Your task to perform on an android device: Open Google Chrome and click the shortcut for Amazon.com Image 0: 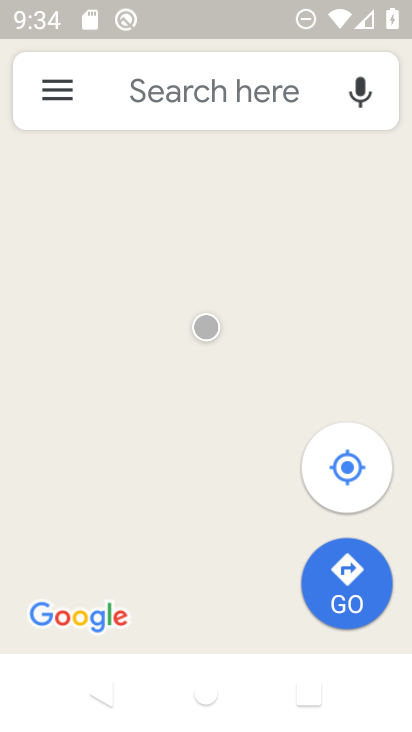
Step 0: press home button
Your task to perform on an android device: Open Google Chrome and click the shortcut for Amazon.com Image 1: 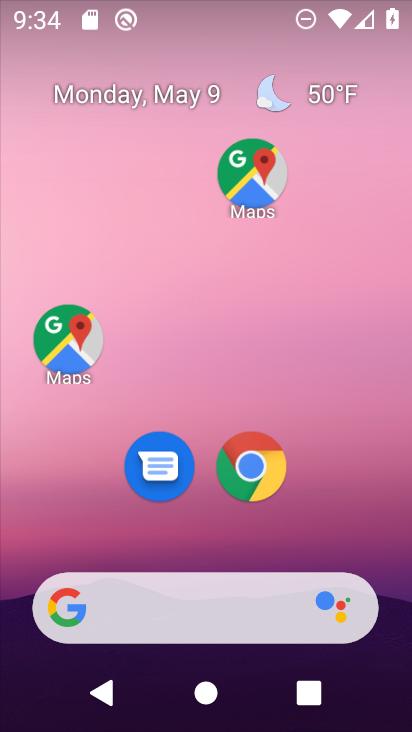
Step 1: click (233, 463)
Your task to perform on an android device: Open Google Chrome and click the shortcut for Amazon.com Image 2: 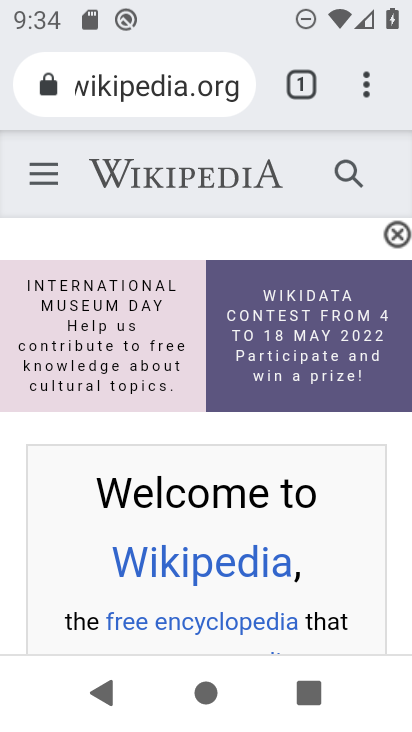
Step 2: click (376, 76)
Your task to perform on an android device: Open Google Chrome and click the shortcut for Amazon.com Image 3: 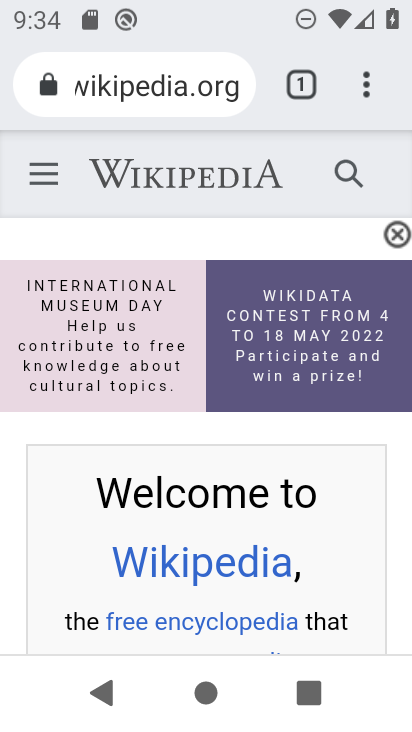
Step 3: click (356, 94)
Your task to perform on an android device: Open Google Chrome and click the shortcut for Amazon.com Image 4: 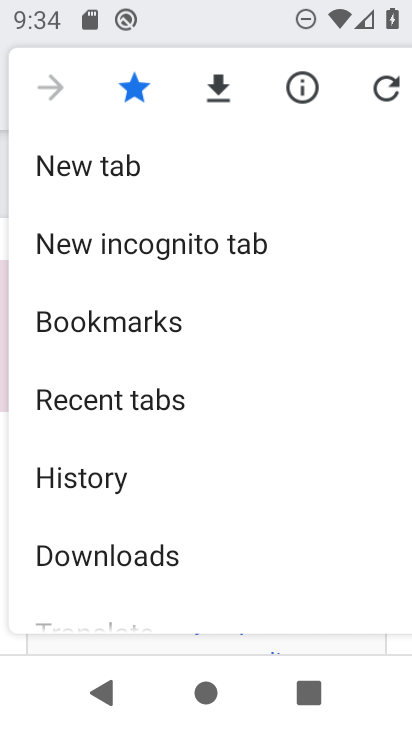
Step 4: click (187, 162)
Your task to perform on an android device: Open Google Chrome and click the shortcut for Amazon.com Image 5: 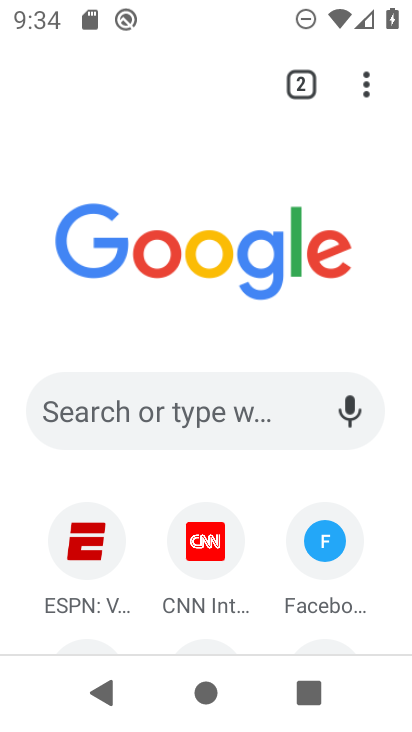
Step 5: drag from (215, 462) to (324, 178)
Your task to perform on an android device: Open Google Chrome and click the shortcut for Amazon.com Image 6: 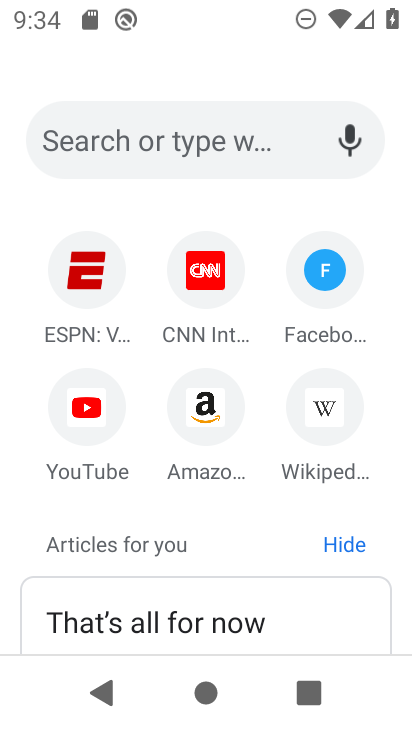
Step 6: click (206, 428)
Your task to perform on an android device: Open Google Chrome and click the shortcut for Amazon.com Image 7: 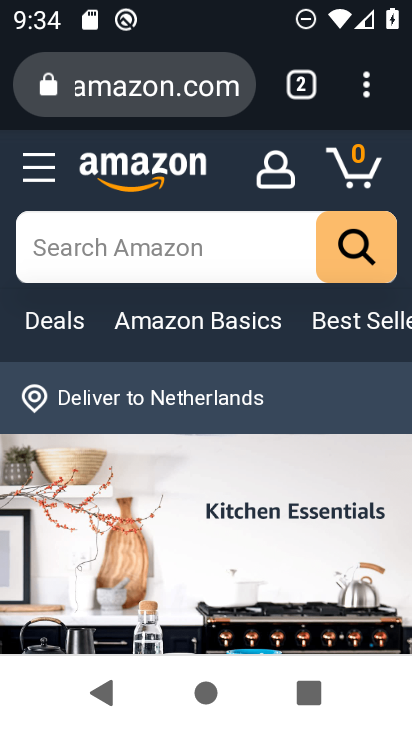
Step 7: task complete